Your task to perform on an android device: What's on my calendar tomorrow? Image 0: 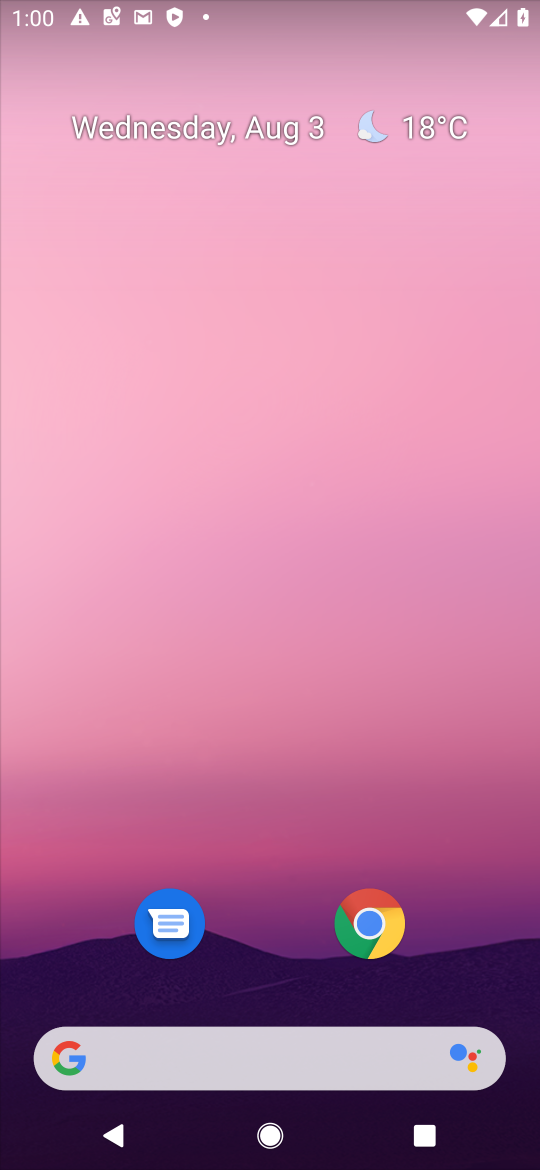
Step 0: click (333, 316)
Your task to perform on an android device: What's on my calendar tomorrow? Image 1: 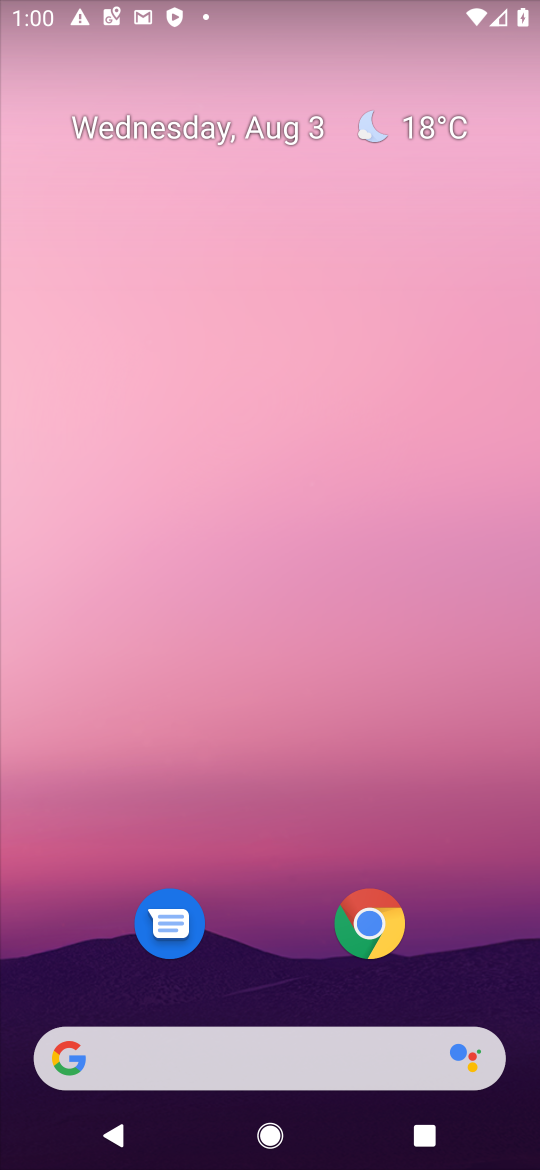
Step 1: drag from (288, 984) to (254, 554)
Your task to perform on an android device: What's on my calendar tomorrow? Image 2: 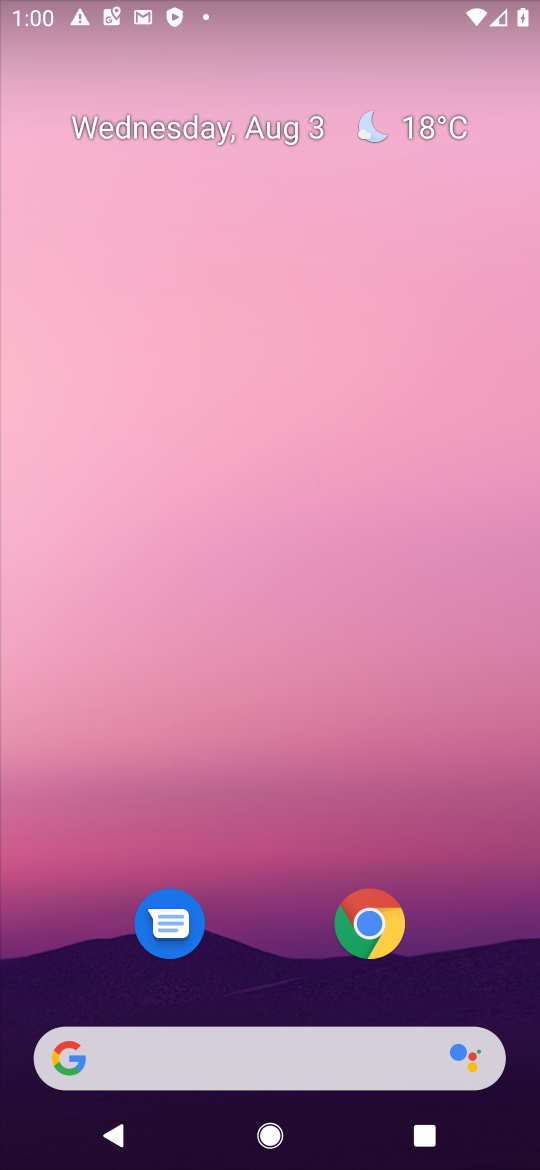
Step 2: drag from (274, 1004) to (324, 176)
Your task to perform on an android device: What's on my calendar tomorrow? Image 3: 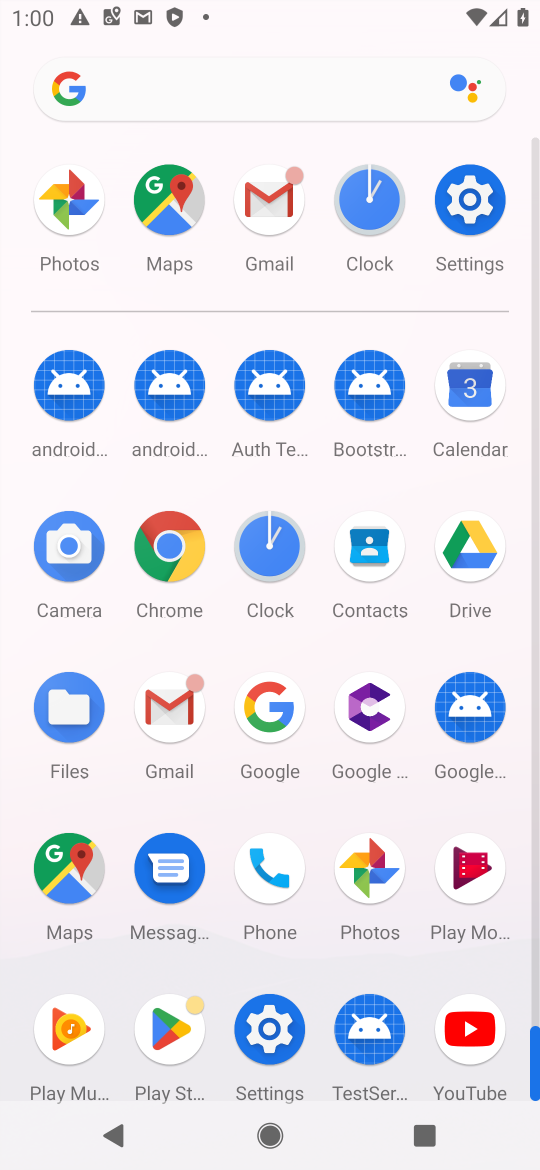
Step 3: click (462, 398)
Your task to perform on an android device: What's on my calendar tomorrow? Image 4: 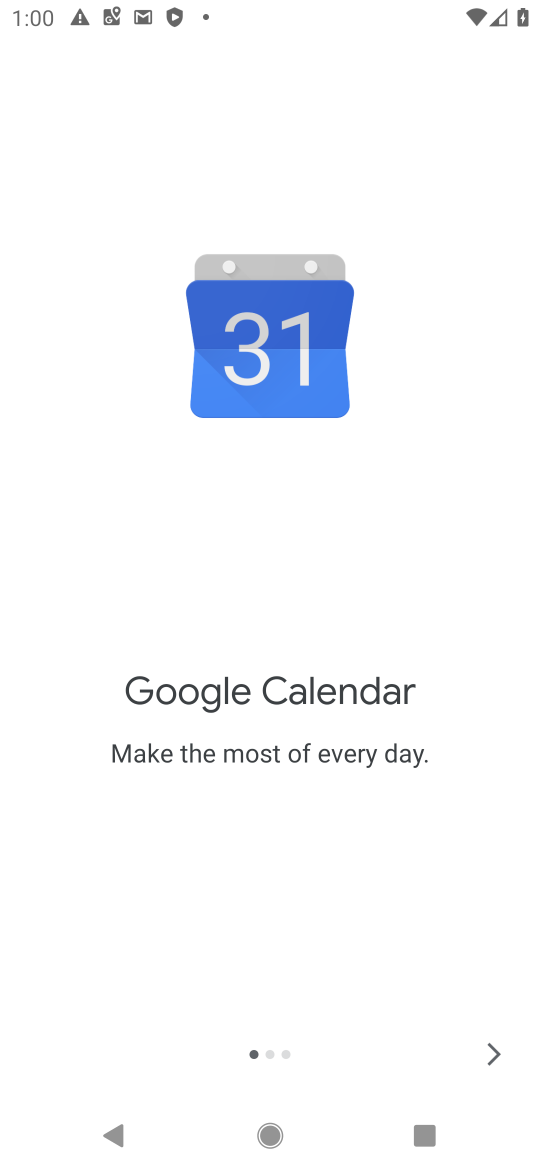
Step 4: click (480, 1038)
Your task to perform on an android device: What's on my calendar tomorrow? Image 5: 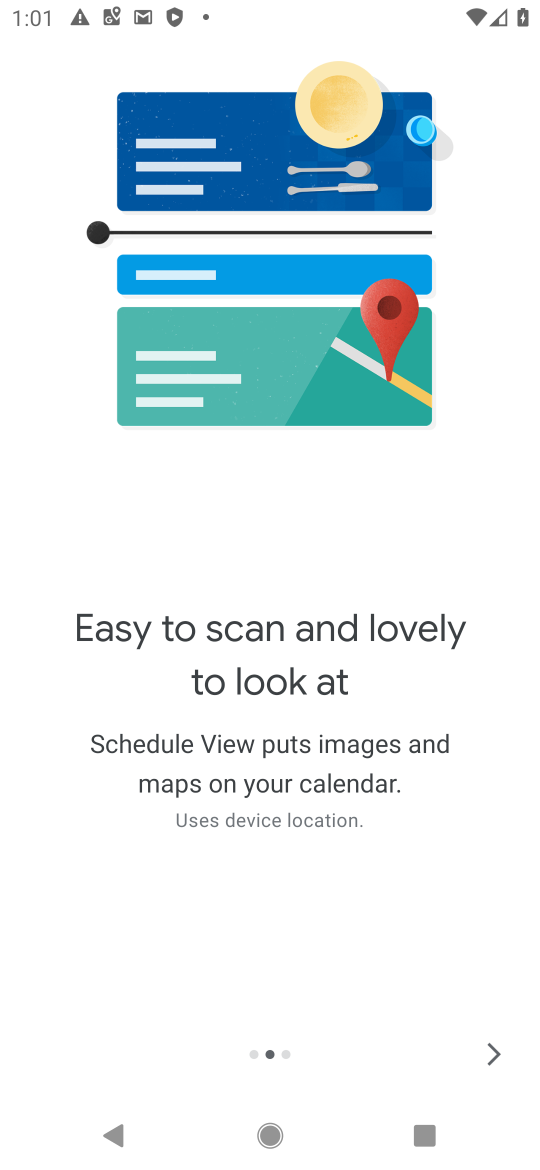
Step 5: click (487, 1054)
Your task to perform on an android device: What's on my calendar tomorrow? Image 6: 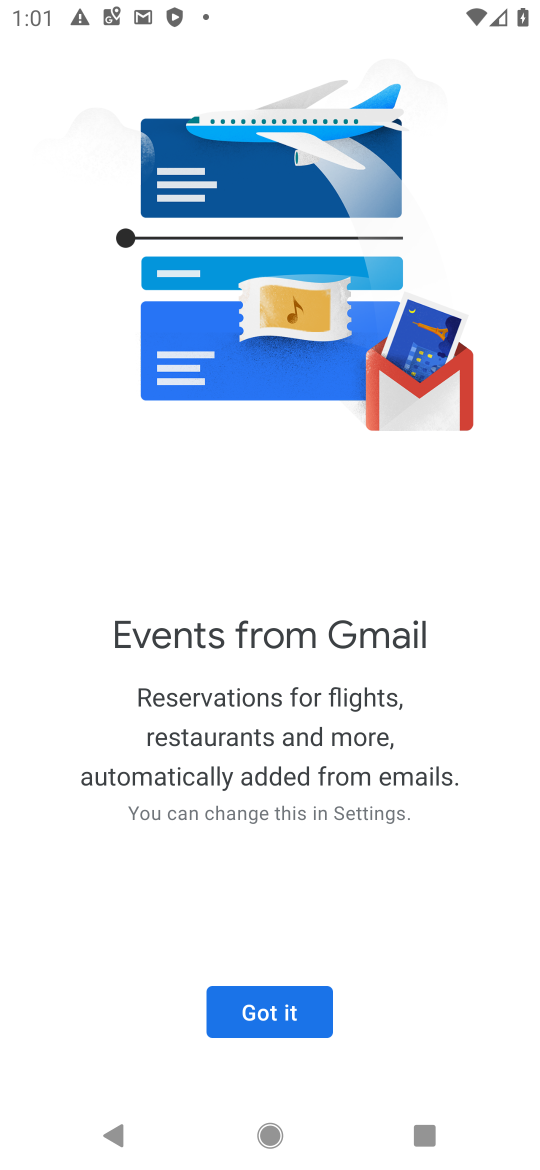
Step 6: click (202, 1001)
Your task to perform on an android device: What's on my calendar tomorrow? Image 7: 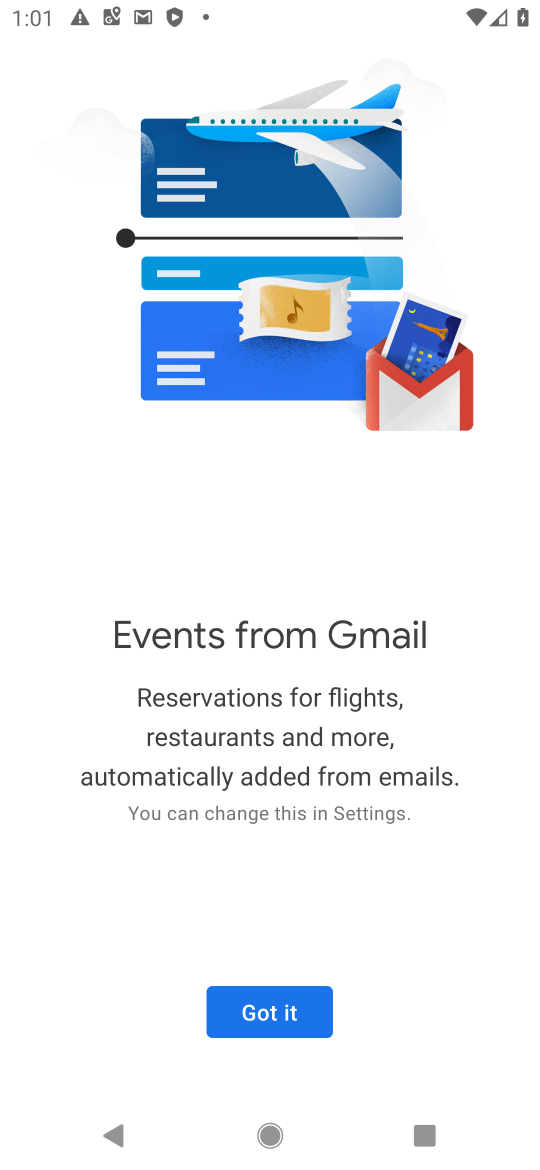
Step 7: click (224, 1003)
Your task to perform on an android device: What's on my calendar tomorrow? Image 8: 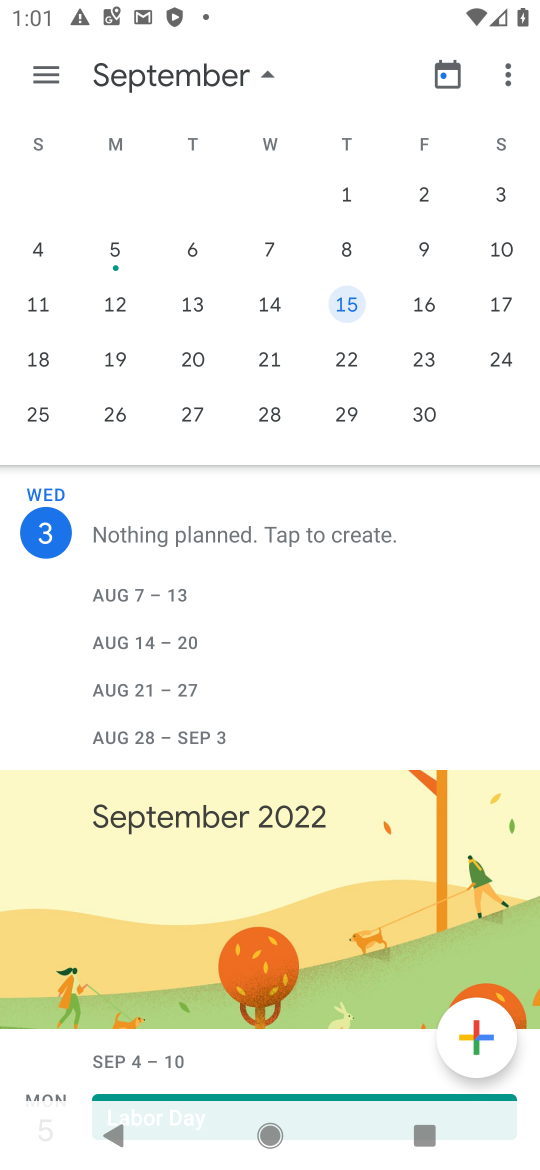
Step 8: click (452, 86)
Your task to perform on an android device: What's on my calendar tomorrow? Image 9: 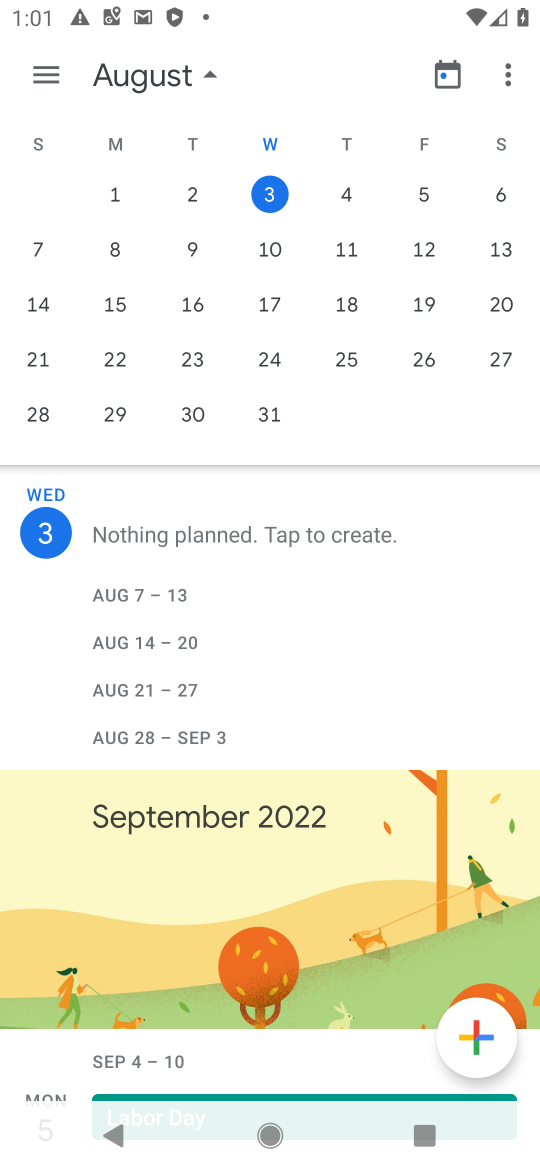
Step 9: drag from (216, 804) to (264, 413)
Your task to perform on an android device: What's on my calendar tomorrow? Image 10: 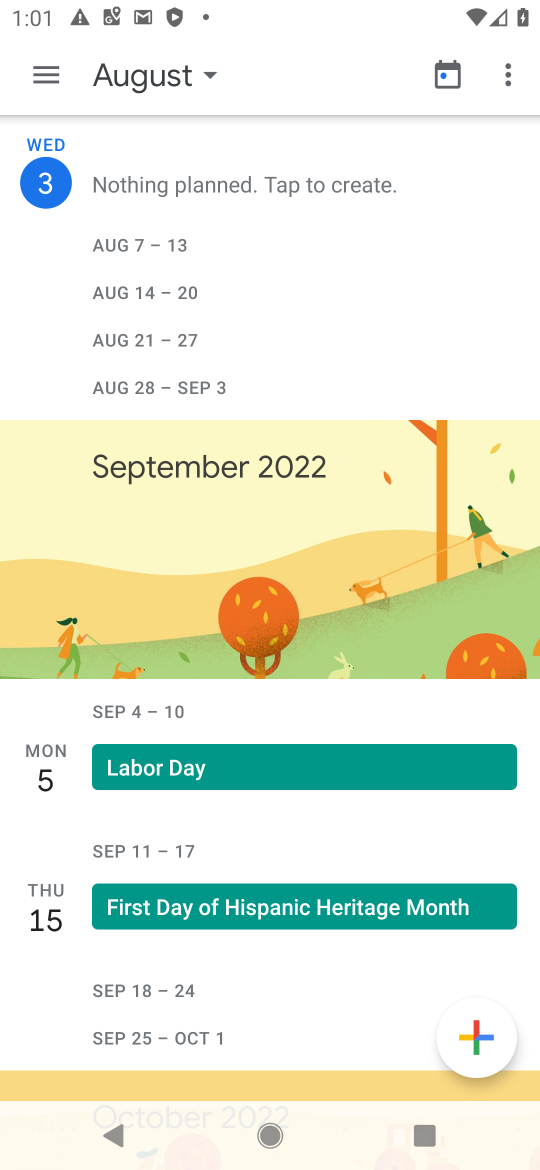
Step 10: drag from (144, 628) to (134, 331)
Your task to perform on an android device: What's on my calendar tomorrow? Image 11: 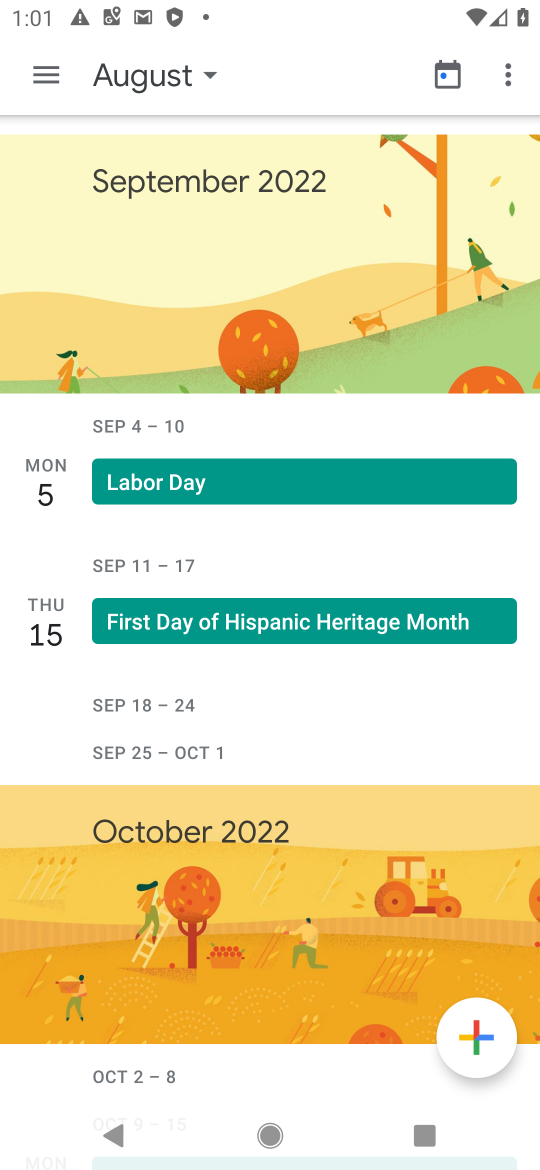
Step 11: click (157, 71)
Your task to perform on an android device: What's on my calendar tomorrow? Image 12: 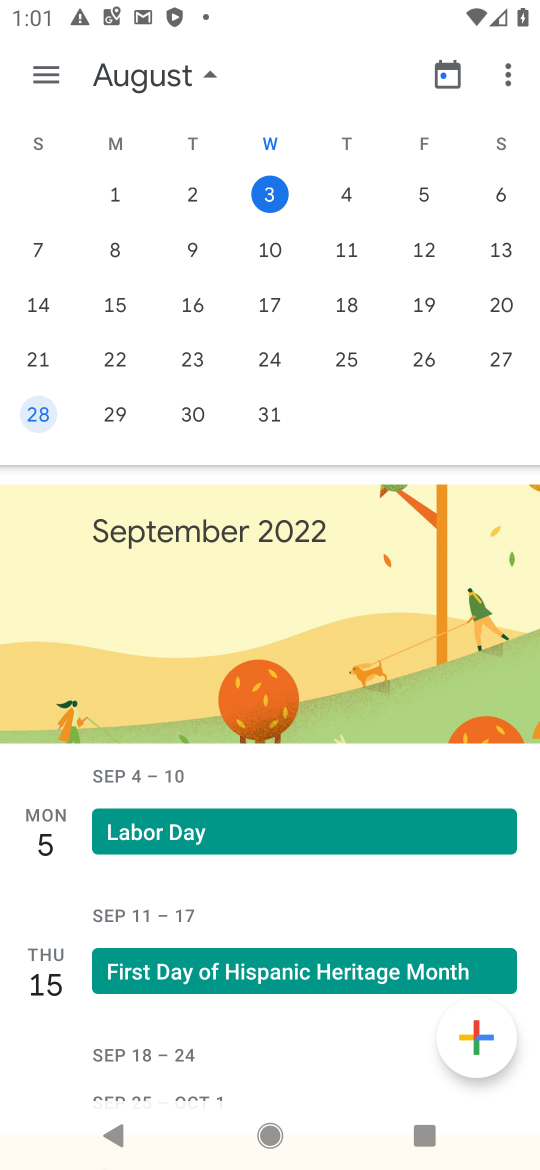
Step 12: click (352, 195)
Your task to perform on an android device: What's on my calendar tomorrow? Image 13: 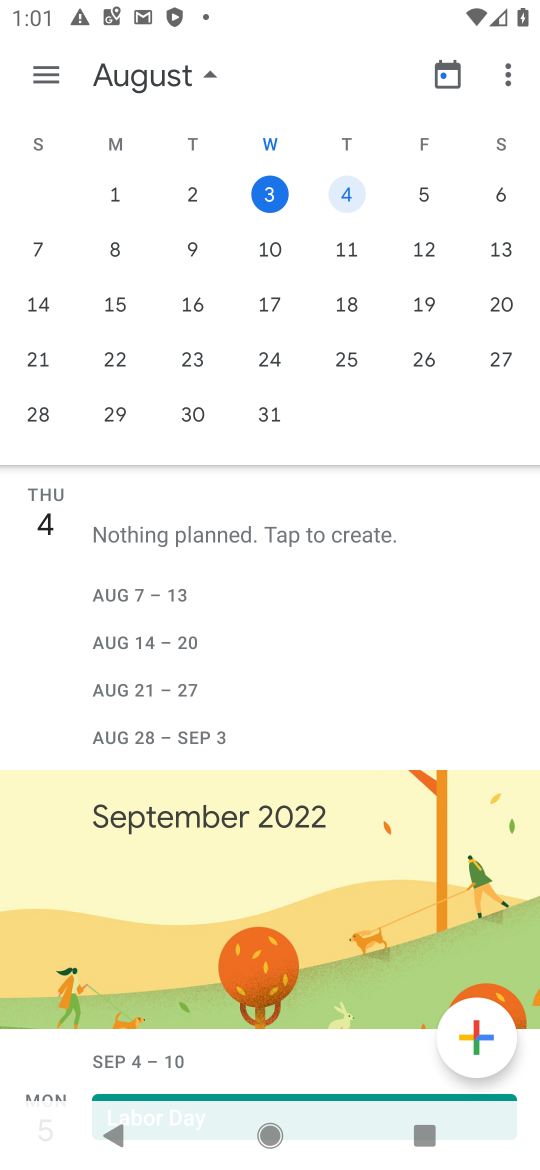
Step 13: task complete